Your task to perform on an android device: uninstall "ZOOM Cloud Meetings" Image 0: 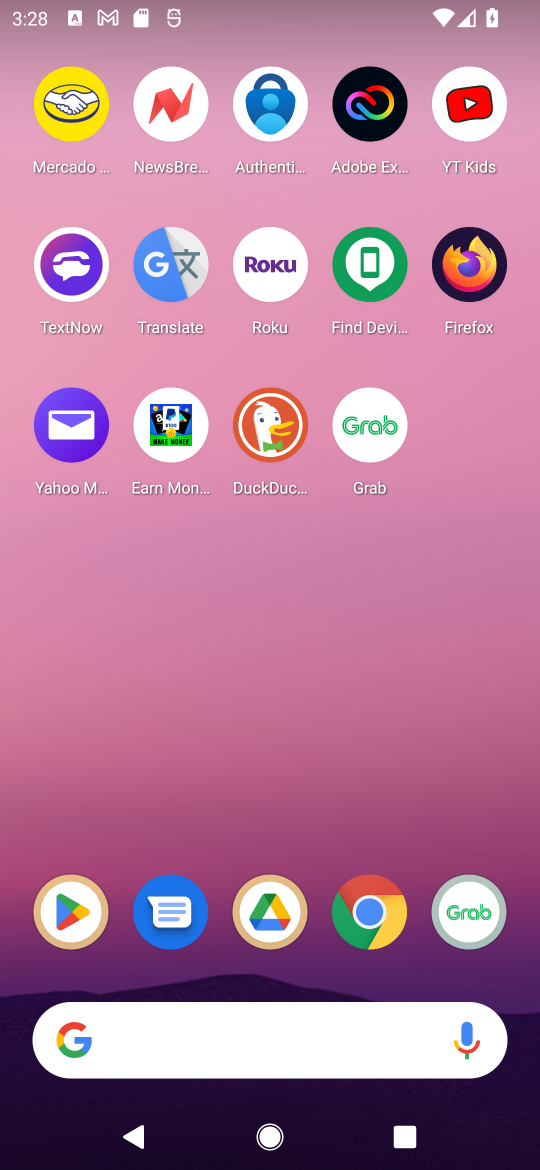
Step 0: click (61, 917)
Your task to perform on an android device: uninstall "ZOOM Cloud Meetings" Image 1: 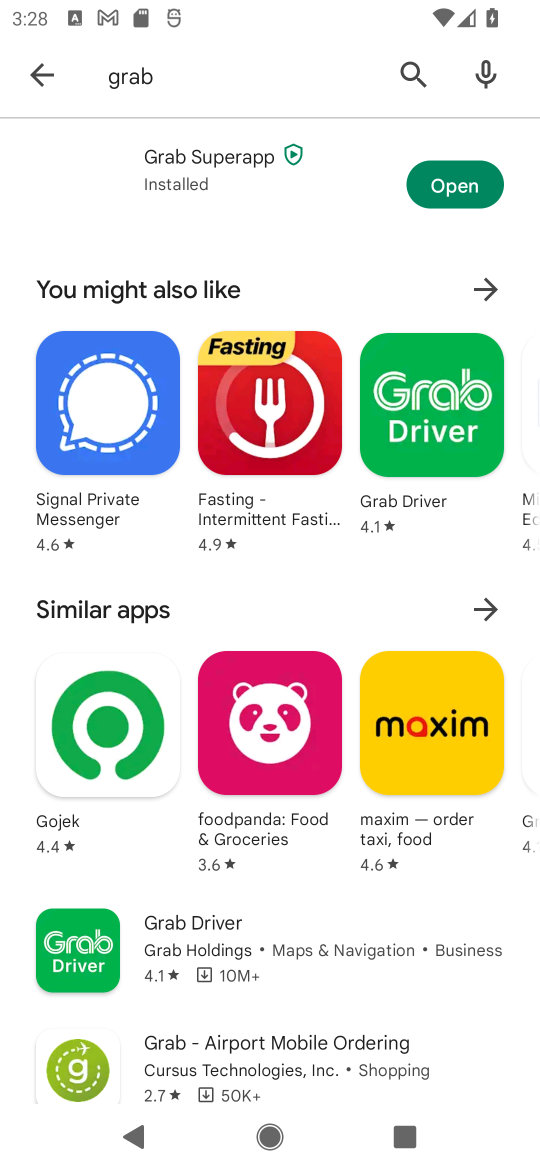
Step 1: click (412, 68)
Your task to perform on an android device: uninstall "ZOOM Cloud Meetings" Image 2: 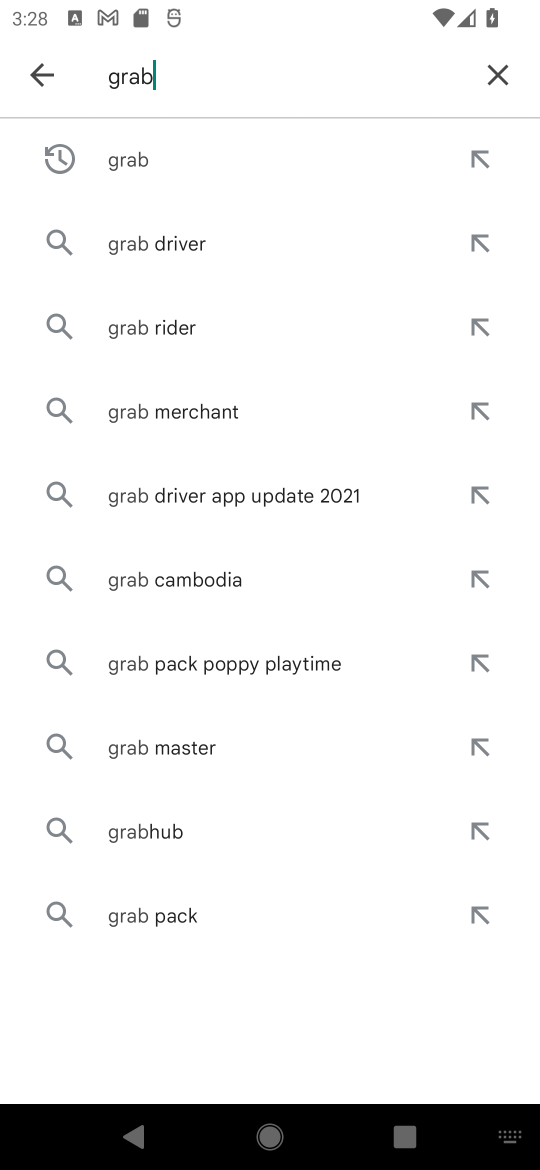
Step 2: click (483, 74)
Your task to perform on an android device: uninstall "ZOOM Cloud Meetings" Image 3: 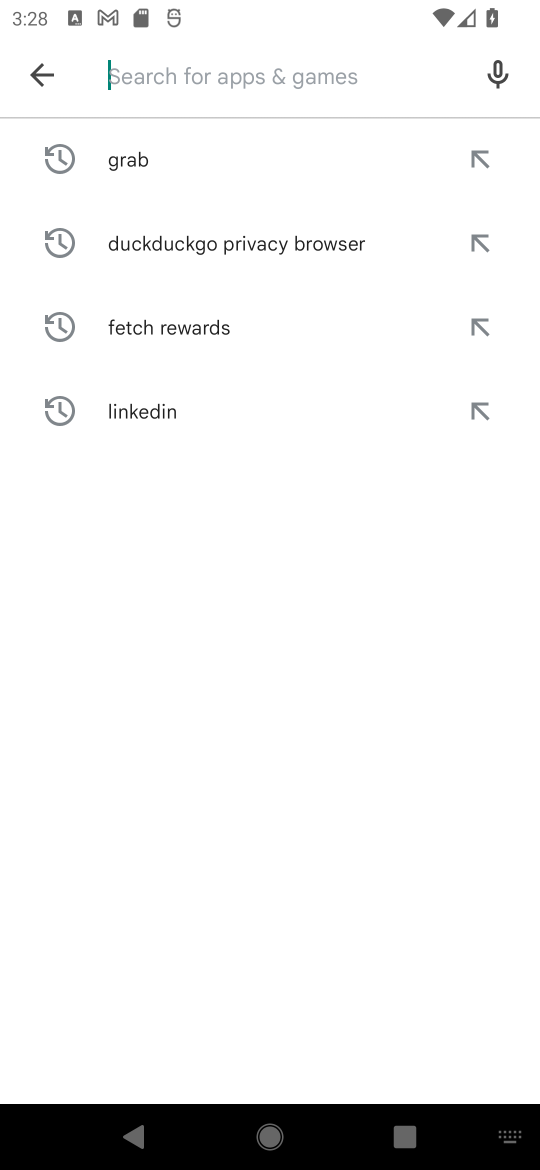
Step 3: type "ZOOM Cloud Meetings"
Your task to perform on an android device: uninstall "ZOOM Cloud Meetings" Image 4: 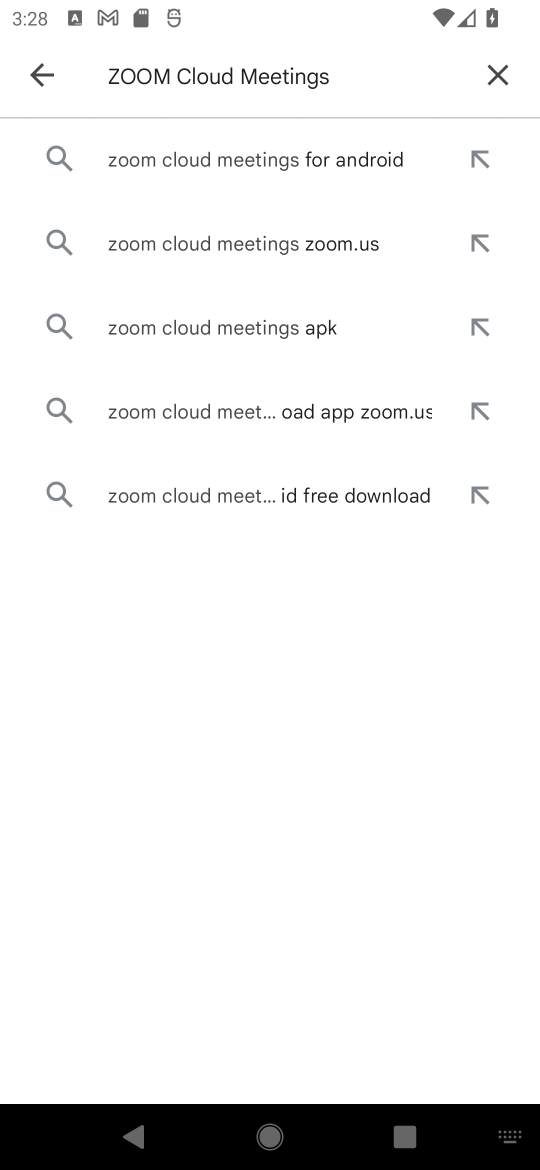
Step 4: click (172, 168)
Your task to perform on an android device: uninstall "ZOOM Cloud Meetings" Image 5: 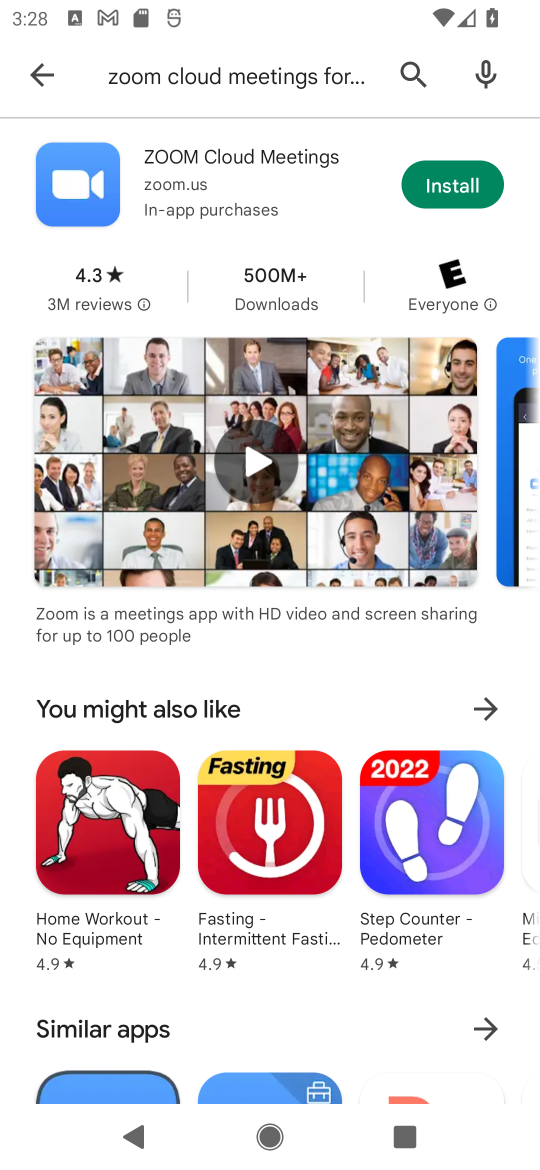
Step 5: task complete